Your task to perform on an android device: turn on improve location accuracy Image 0: 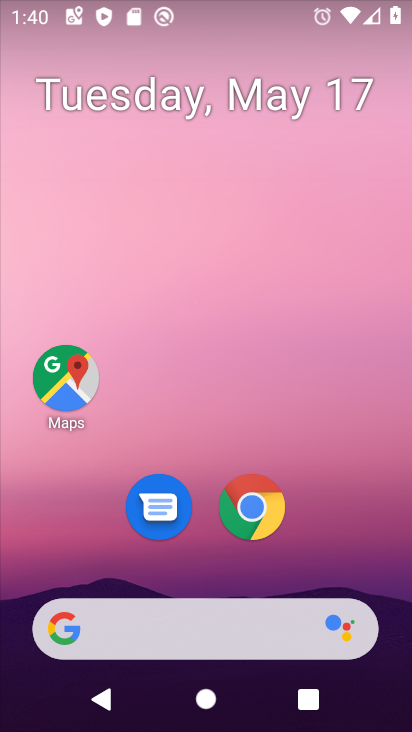
Step 0: drag from (320, 442) to (339, 264)
Your task to perform on an android device: turn on improve location accuracy Image 1: 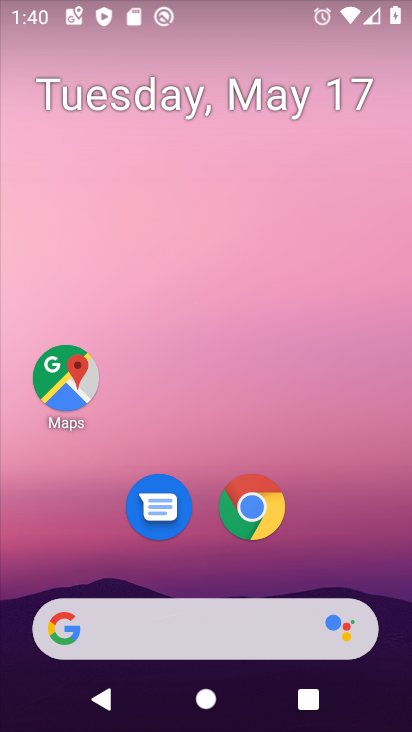
Step 1: drag from (245, 555) to (291, 204)
Your task to perform on an android device: turn on improve location accuracy Image 2: 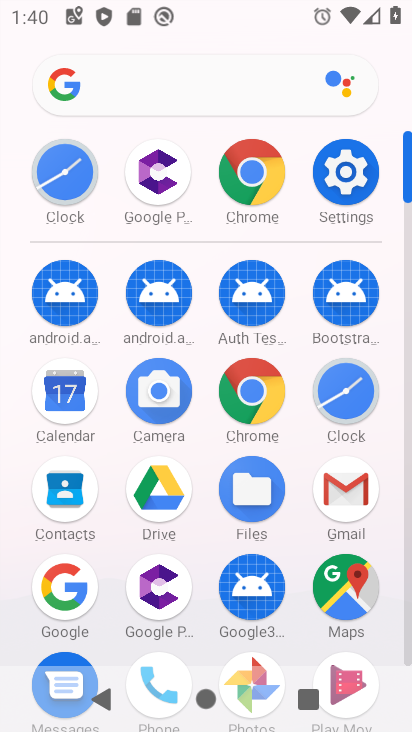
Step 2: click (342, 156)
Your task to perform on an android device: turn on improve location accuracy Image 3: 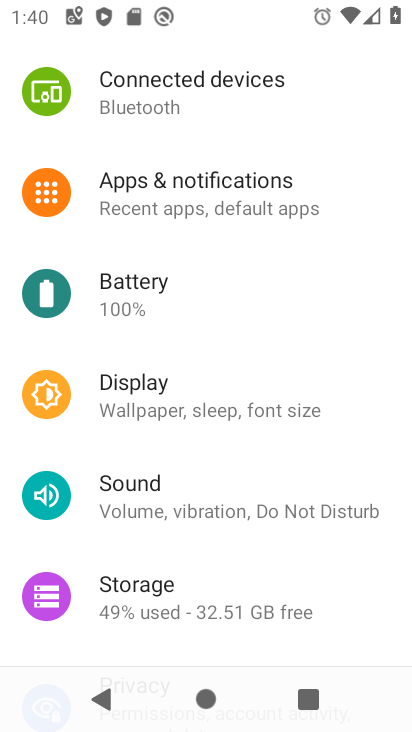
Step 3: drag from (168, 520) to (198, 144)
Your task to perform on an android device: turn on improve location accuracy Image 4: 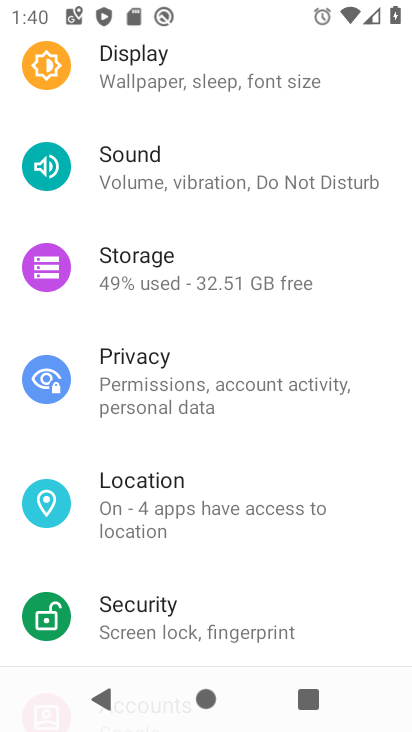
Step 4: click (134, 501)
Your task to perform on an android device: turn on improve location accuracy Image 5: 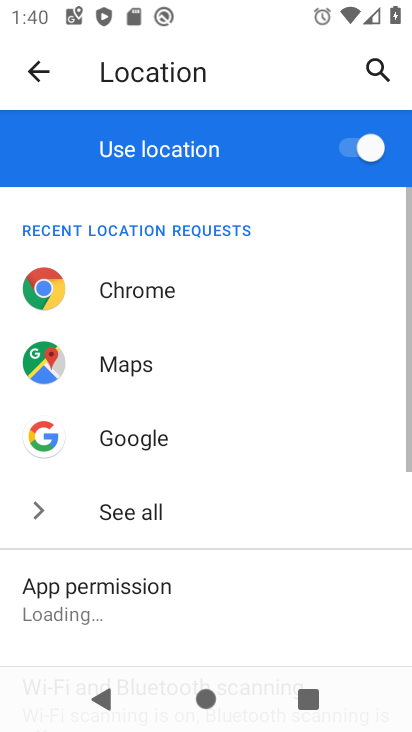
Step 5: drag from (134, 573) to (217, 171)
Your task to perform on an android device: turn on improve location accuracy Image 6: 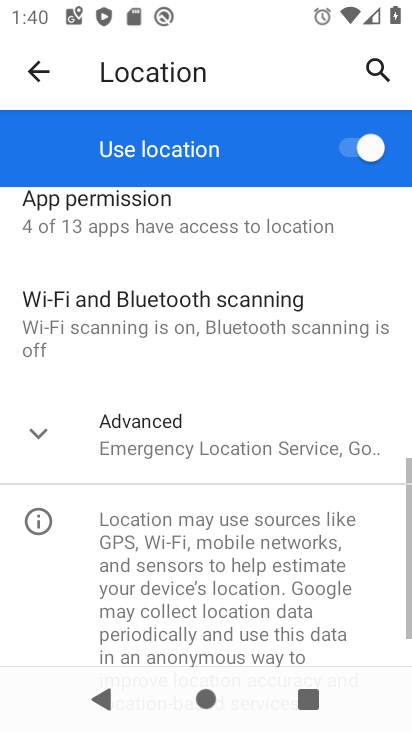
Step 6: click (202, 433)
Your task to perform on an android device: turn on improve location accuracy Image 7: 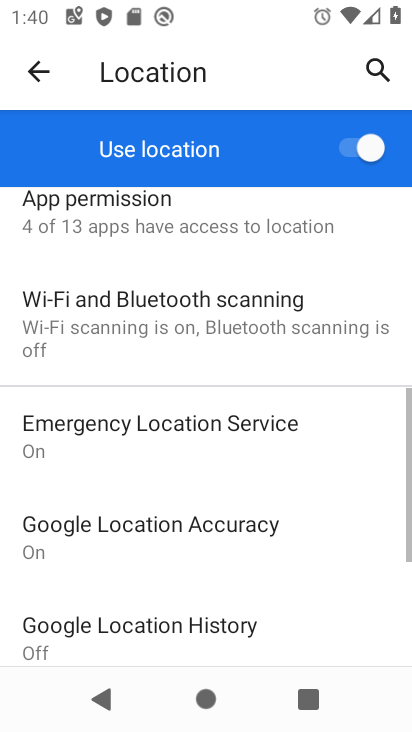
Step 7: drag from (182, 535) to (276, 225)
Your task to perform on an android device: turn on improve location accuracy Image 8: 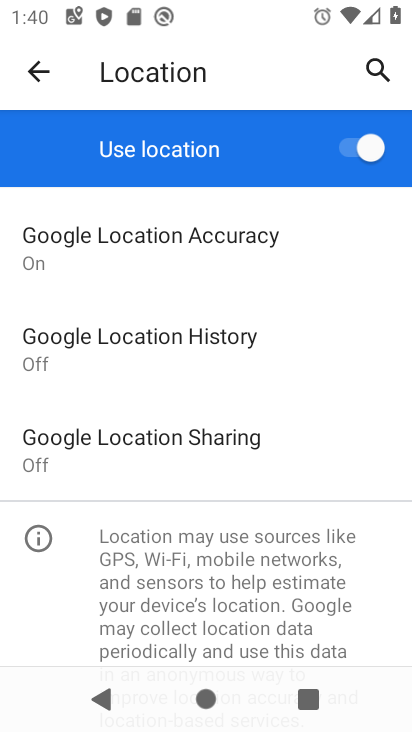
Step 8: click (180, 248)
Your task to perform on an android device: turn on improve location accuracy Image 9: 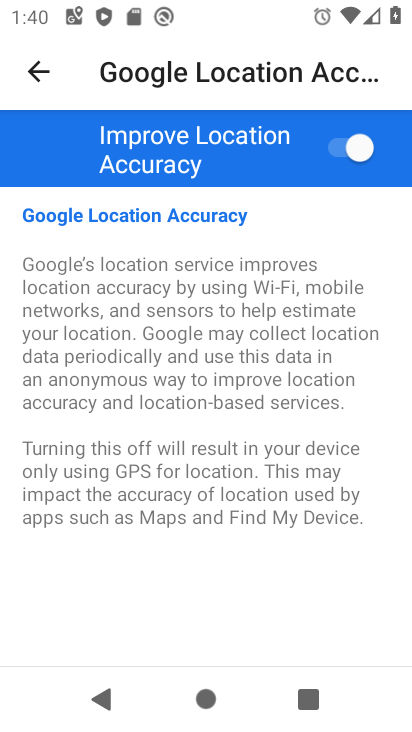
Step 9: task complete